Your task to perform on an android device: open chrome privacy settings Image 0: 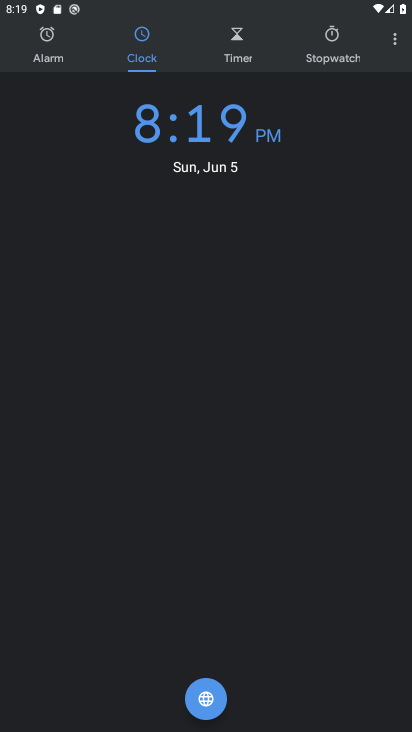
Step 0: task complete